Your task to perform on an android device: add a contact Image 0: 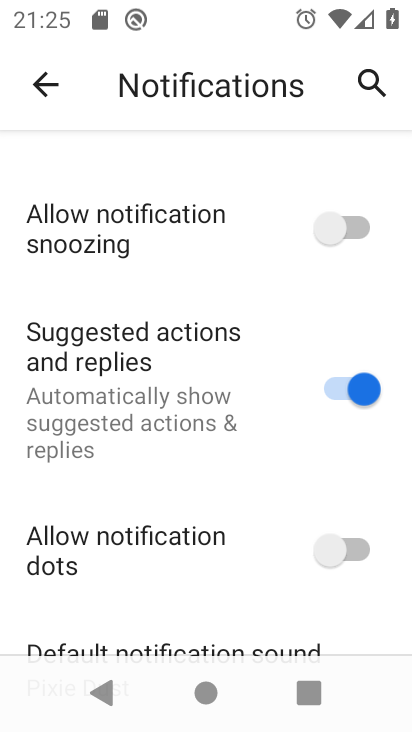
Step 0: press home button
Your task to perform on an android device: add a contact Image 1: 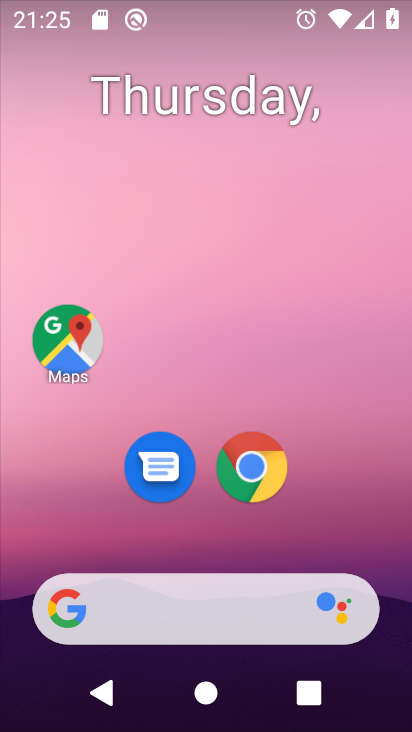
Step 1: drag from (248, 478) to (274, 208)
Your task to perform on an android device: add a contact Image 2: 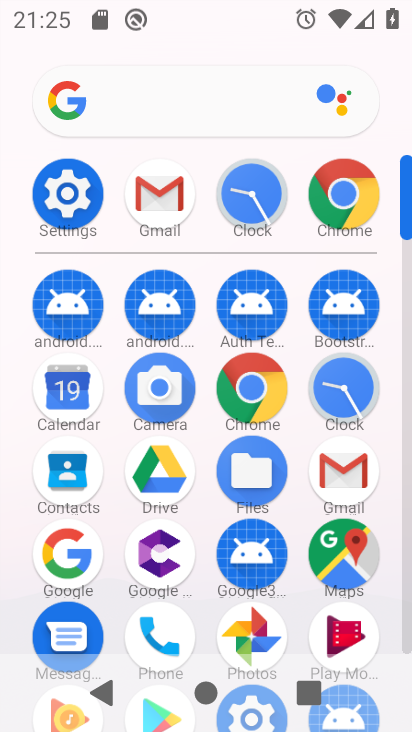
Step 2: click (145, 603)
Your task to perform on an android device: add a contact Image 3: 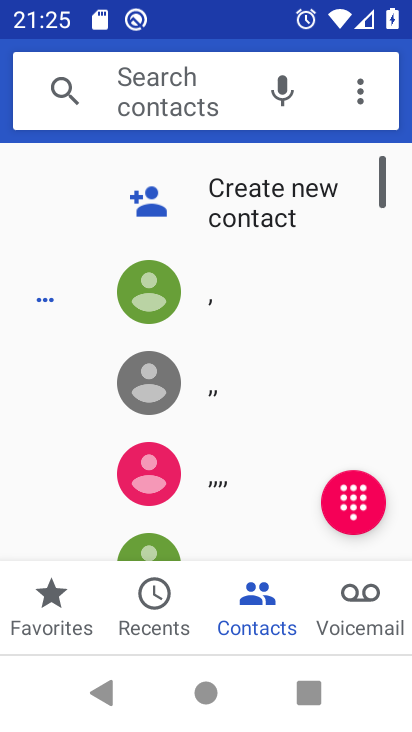
Step 3: click (176, 177)
Your task to perform on an android device: add a contact Image 4: 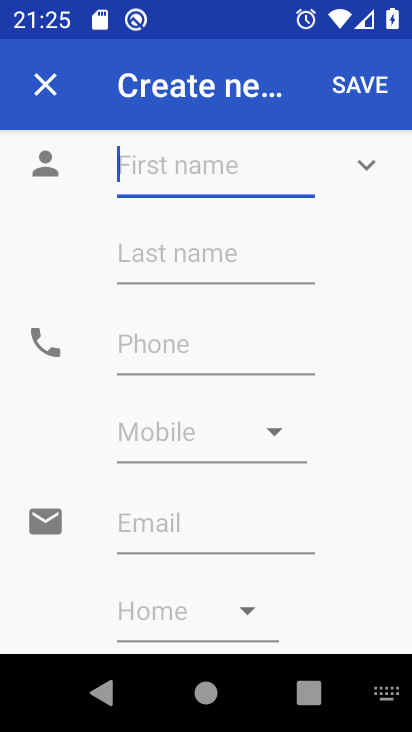
Step 4: click (196, 173)
Your task to perform on an android device: add a contact Image 5: 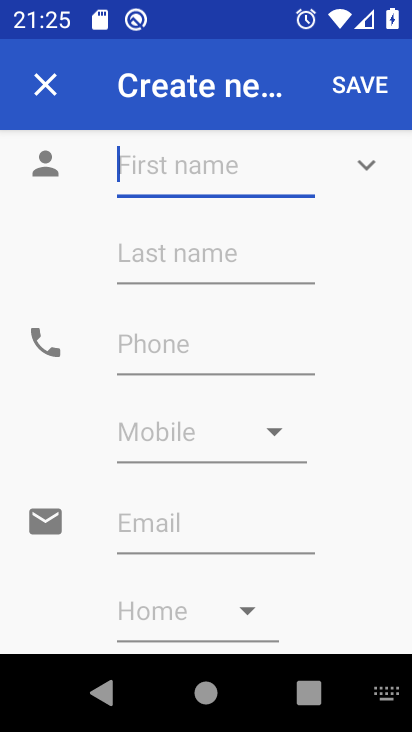
Step 5: type "jhjjjjj"
Your task to perform on an android device: add a contact Image 6: 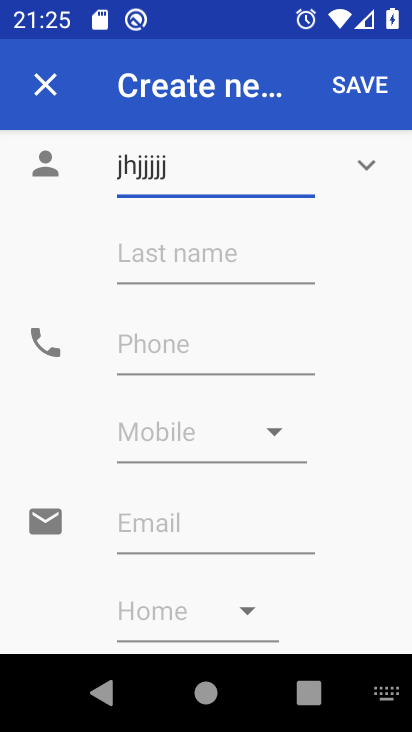
Step 6: click (169, 331)
Your task to perform on an android device: add a contact Image 7: 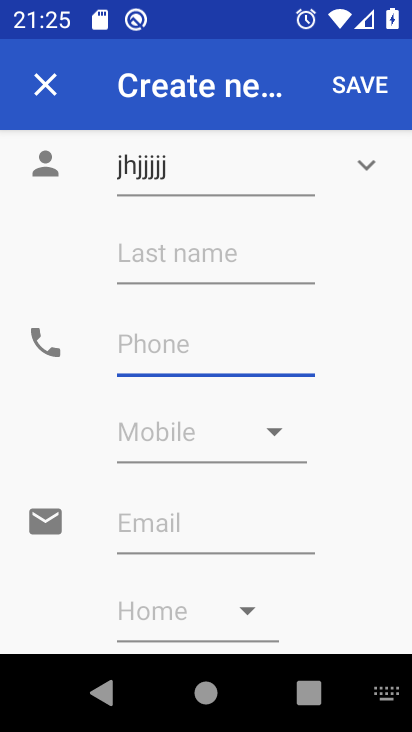
Step 7: type "0987654321"
Your task to perform on an android device: add a contact Image 8: 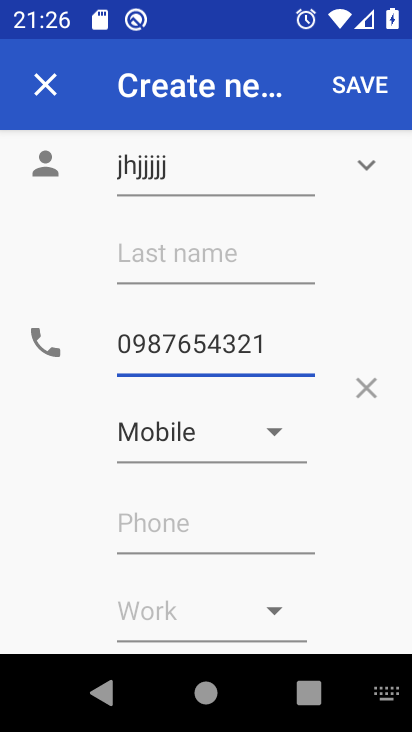
Step 8: click (330, 75)
Your task to perform on an android device: add a contact Image 9: 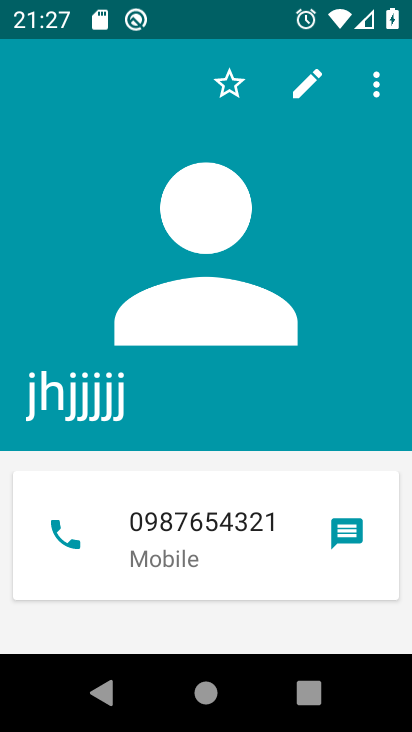
Step 9: task complete